Your task to perform on an android device: Open ESPN.com Image 0: 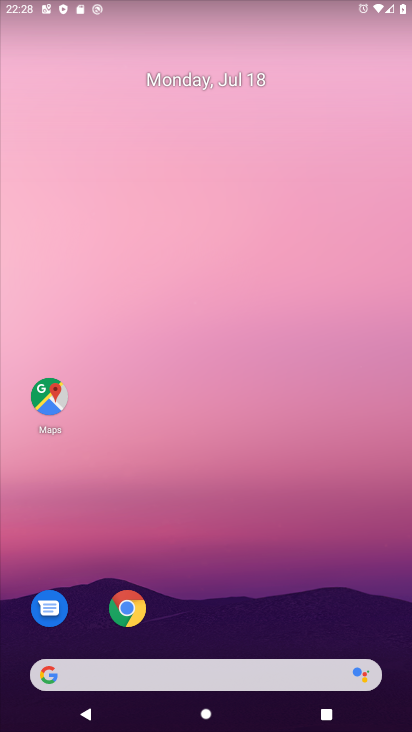
Step 0: click (83, 660)
Your task to perform on an android device: Open ESPN.com Image 1: 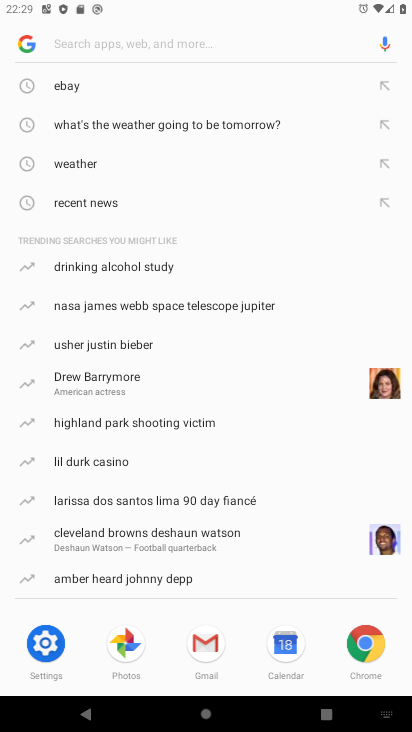
Step 1: type "ESPN.com"
Your task to perform on an android device: Open ESPN.com Image 2: 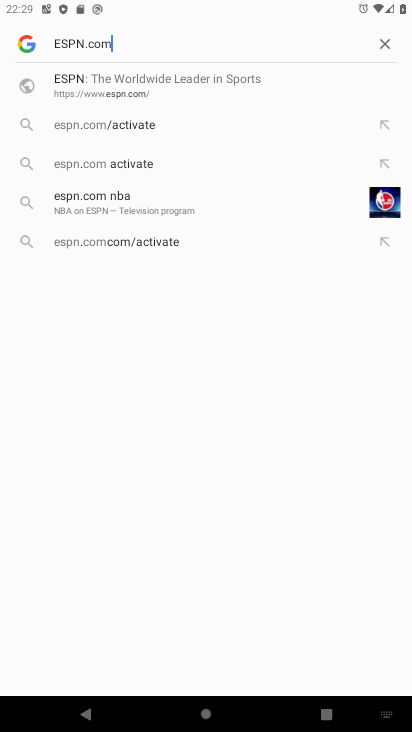
Step 2: type ""
Your task to perform on an android device: Open ESPN.com Image 3: 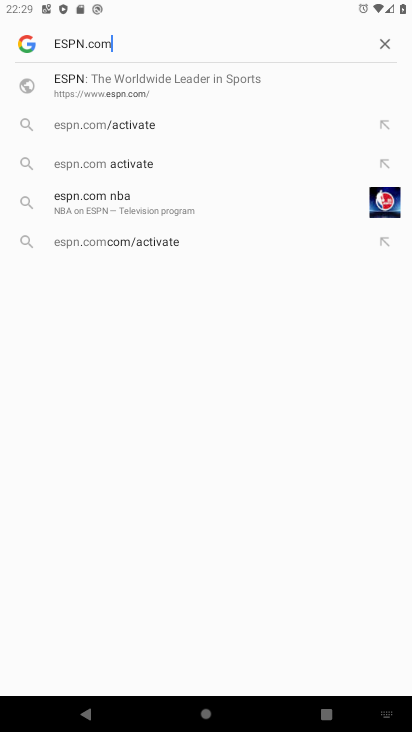
Step 3: click (68, 89)
Your task to perform on an android device: Open ESPN.com Image 4: 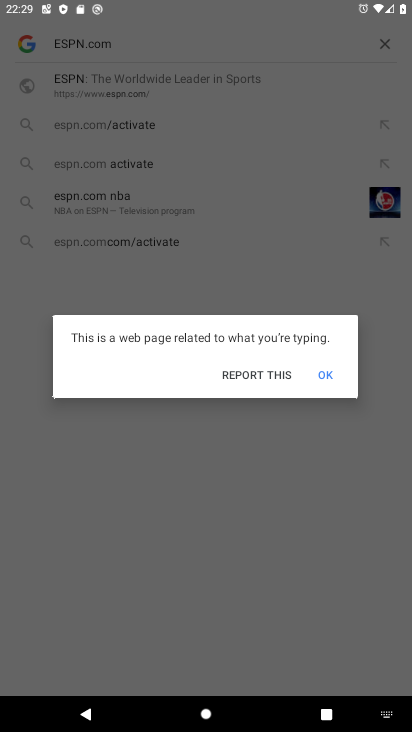
Step 4: click (325, 377)
Your task to perform on an android device: Open ESPN.com Image 5: 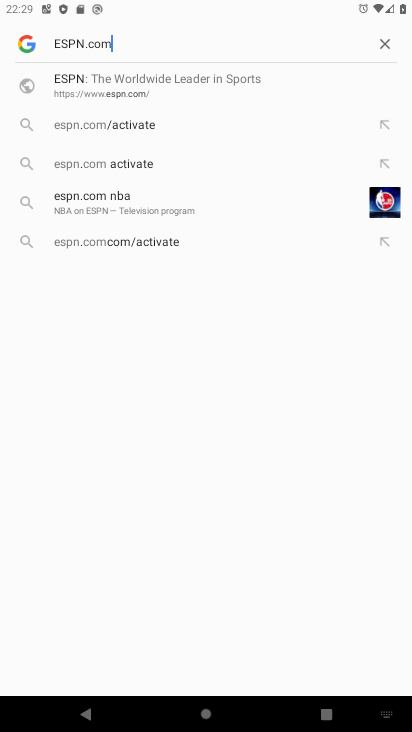
Step 5: task complete